Your task to perform on an android device: find photos in the google photos app Image 0: 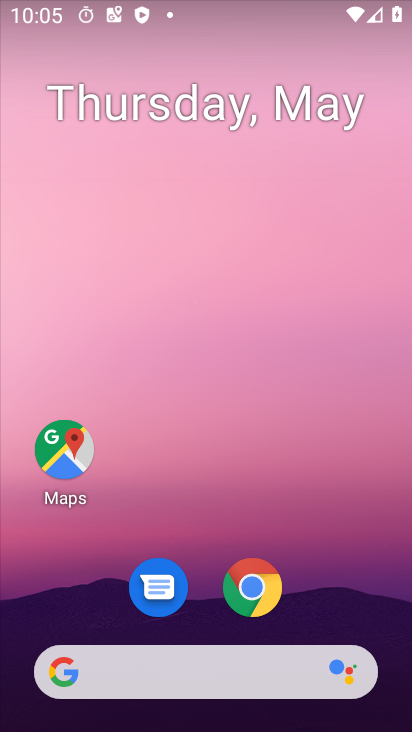
Step 0: drag from (367, 638) to (317, 10)
Your task to perform on an android device: find photos in the google photos app Image 1: 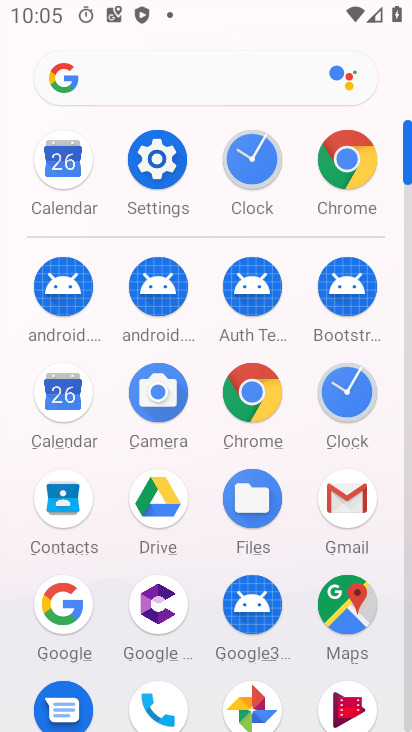
Step 1: click (408, 503)
Your task to perform on an android device: find photos in the google photos app Image 2: 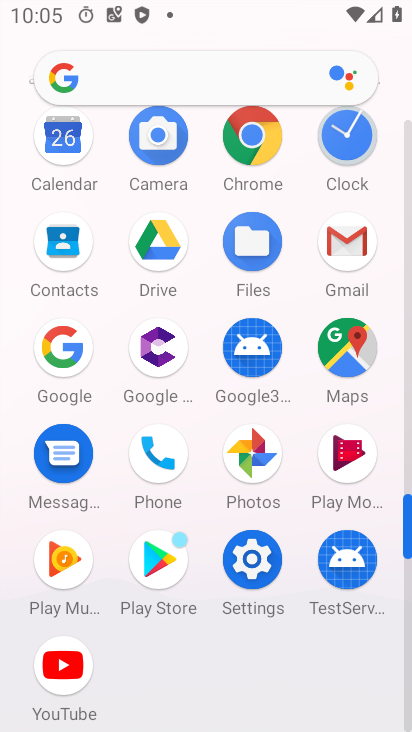
Step 2: click (260, 450)
Your task to perform on an android device: find photos in the google photos app Image 3: 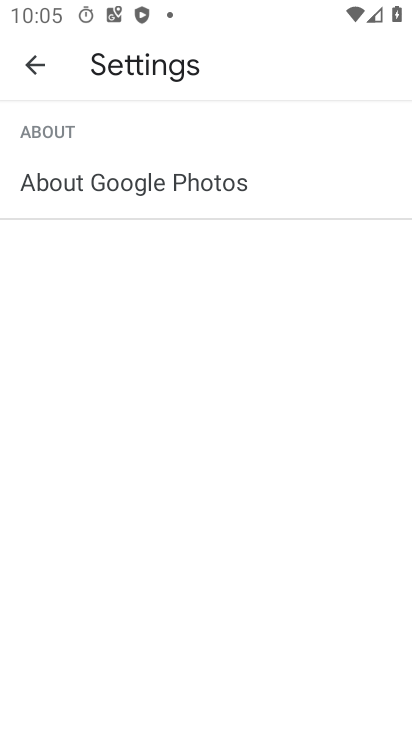
Step 3: click (35, 64)
Your task to perform on an android device: find photos in the google photos app Image 4: 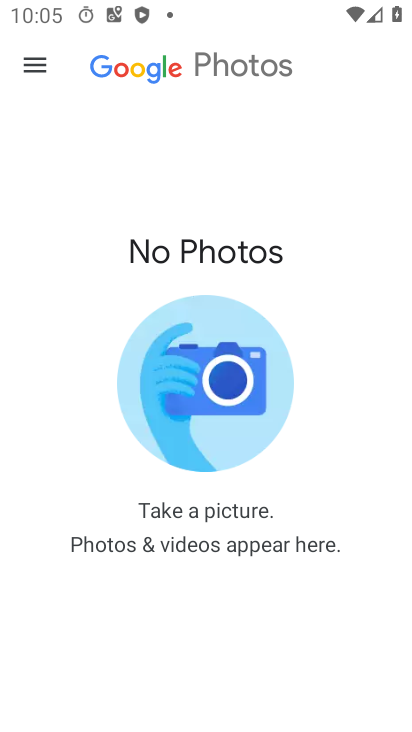
Step 4: task complete